Your task to perform on an android device: Open Google Chrome and open the bookmarks view Image 0: 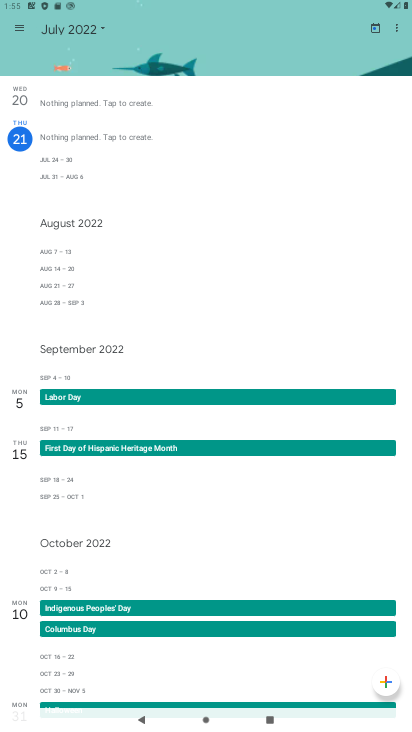
Step 0: task complete